Your task to perform on an android device: Open calendar and show me the fourth week of next month Image 0: 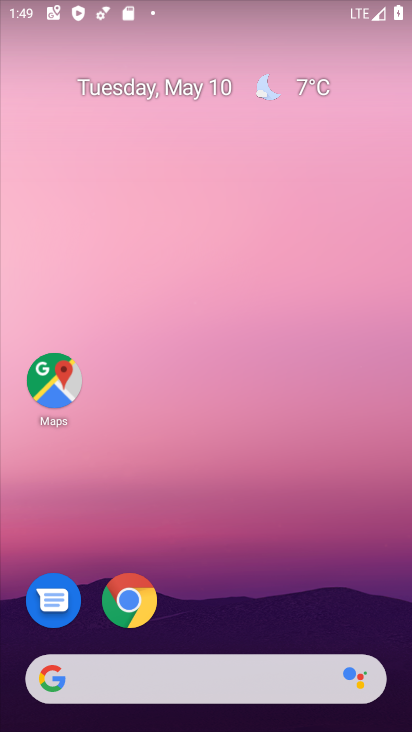
Step 0: drag from (229, 685) to (310, 200)
Your task to perform on an android device: Open calendar and show me the fourth week of next month Image 1: 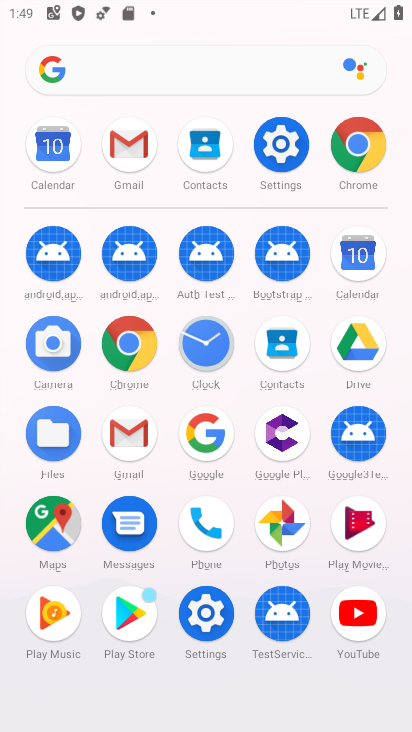
Step 1: click (363, 264)
Your task to perform on an android device: Open calendar and show me the fourth week of next month Image 2: 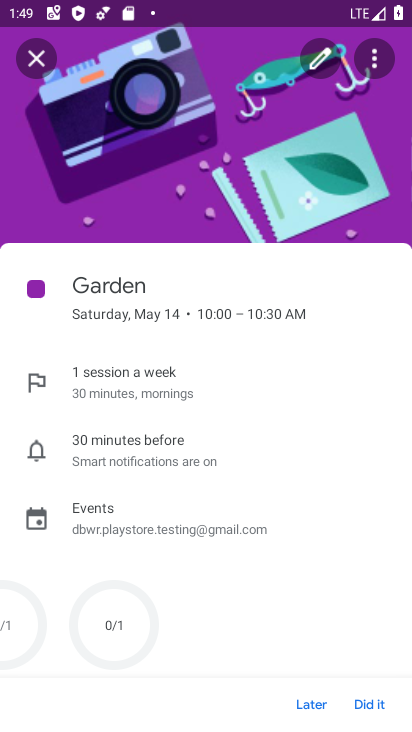
Step 2: click (45, 65)
Your task to perform on an android device: Open calendar and show me the fourth week of next month Image 3: 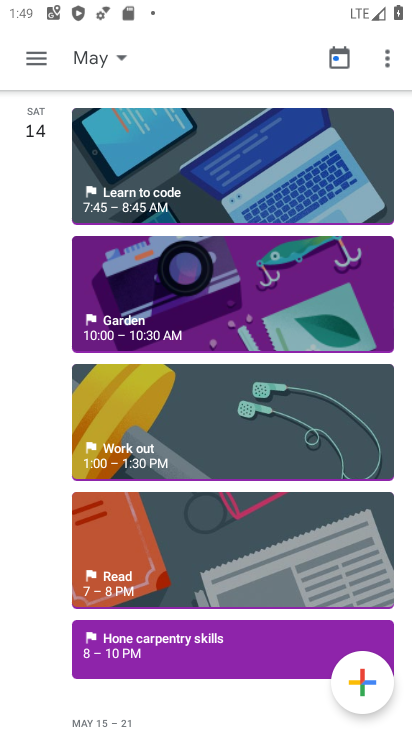
Step 3: click (88, 57)
Your task to perform on an android device: Open calendar and show me the fourth week of next month Image 4: 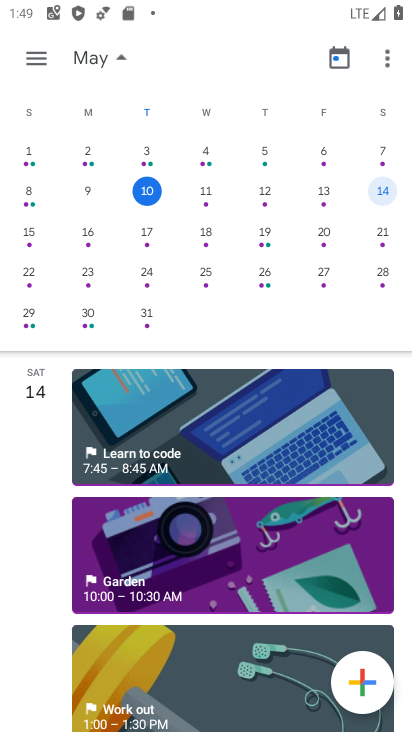
Step 4: drag from (350, 247) to (102, 244)
Your task to perform on an android device: Open calendar and show me the fourth week of next month Image 5: 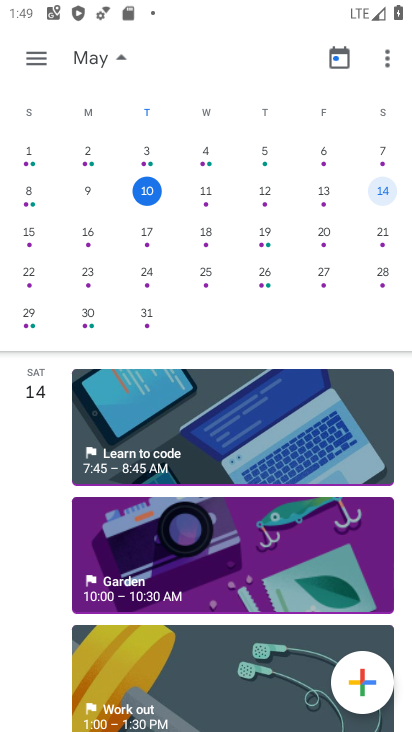
Step 5: drag from (387, 206) to (158, 209)
Your task to perform on an android device: Open calendar and show me the fourth week of next month Image 6: 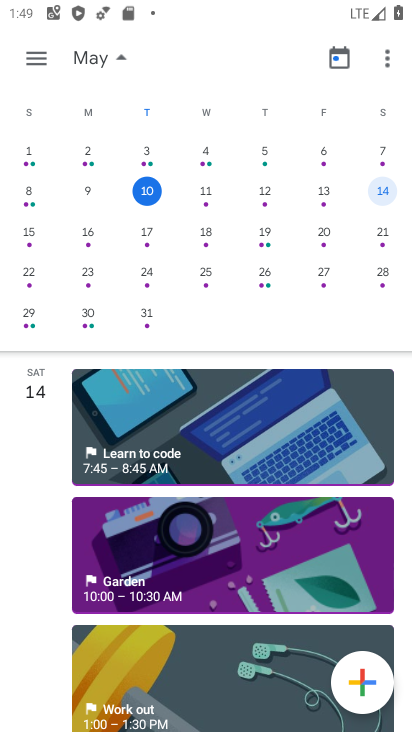
Step 6: drag from (311, 224) to (25, 148)
Your task to perform on an android device: Open calendar and show me the fourth week of next month Image 7: 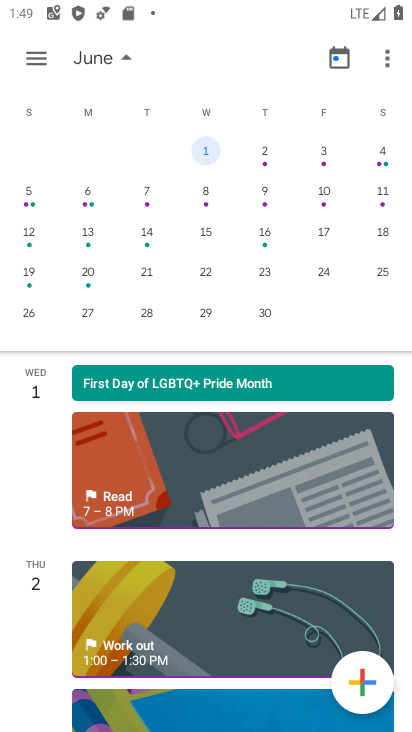
Step 7: click (34, 275)
Your task to perform on an android device: Open calendar and show me the fourth week of next month Image 8: 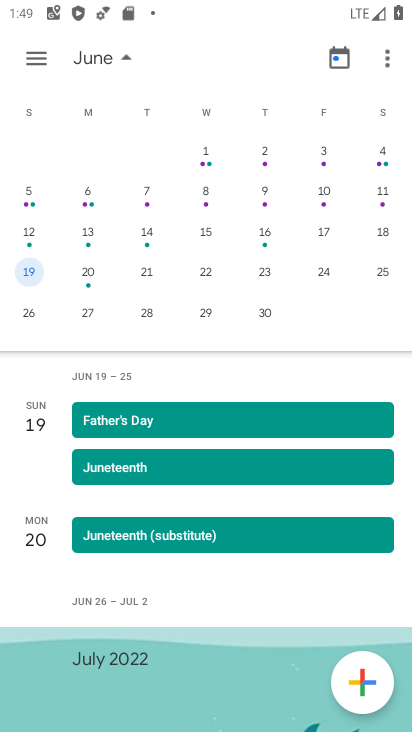
Step 8: click (37, 57)
Your task to perform on an android device: Open calendar and show me the fourth week of next month Image 9: 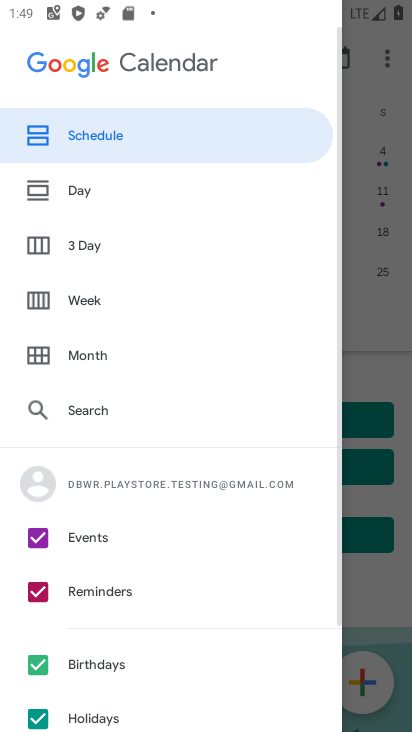
Step 9: click (99, 302)
Your task to perform on an android device: Open calendar and show me the fourth week of next month Image 10: 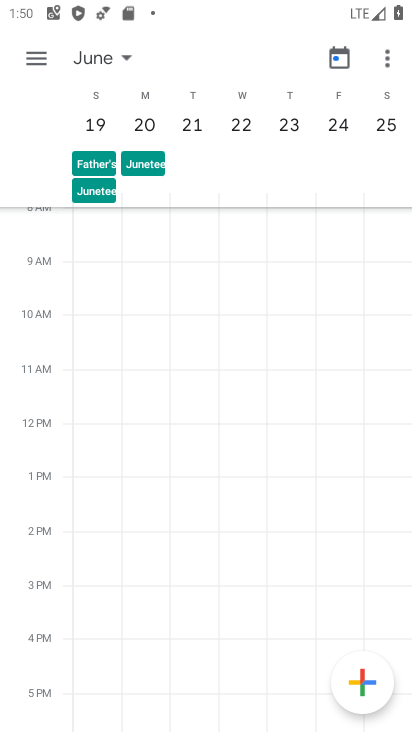
Step 10: task complete